Your task to perform on an android device: set the stopwatch Image 0: 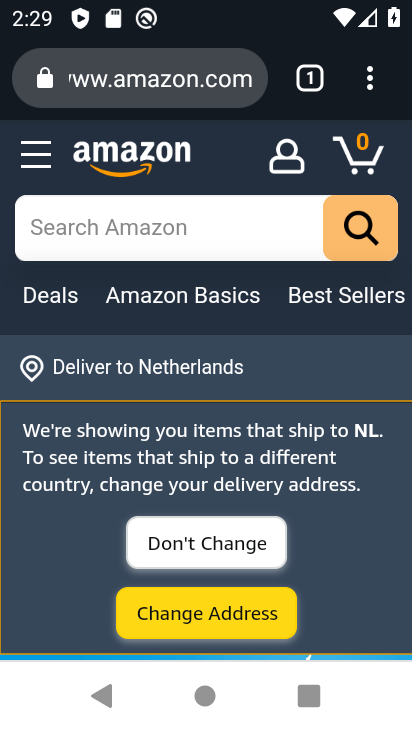
Step 0: press back button
Your task to perform on an android device: set the stopwatch Image 1: 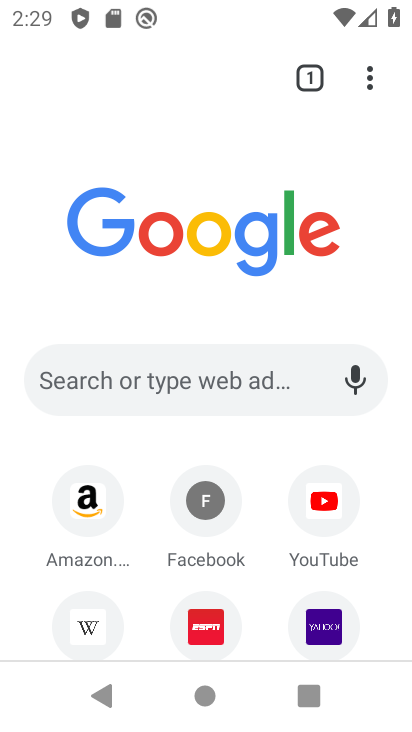
Step 1: press back button
Your task to perform on an android device: set the stopwatch Image 2: 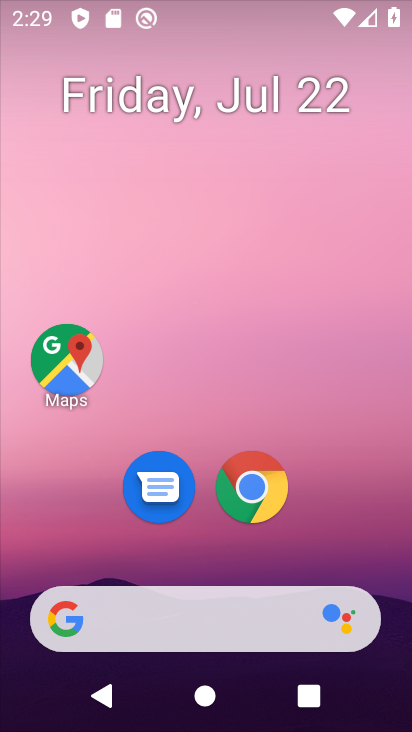
Step 2: drag from (104, 546) to (207, 0)
Your task to perform on an android device: set the stopwatch Image 3: 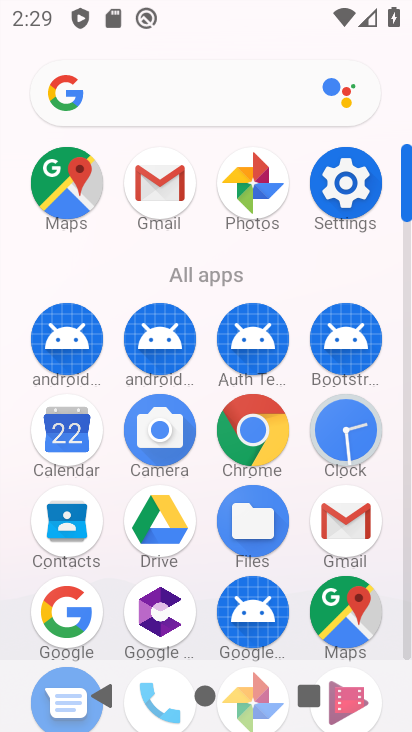
Step 3: click (349, 429)
Your task to perform on an android device: set the stopwatch Image 4: 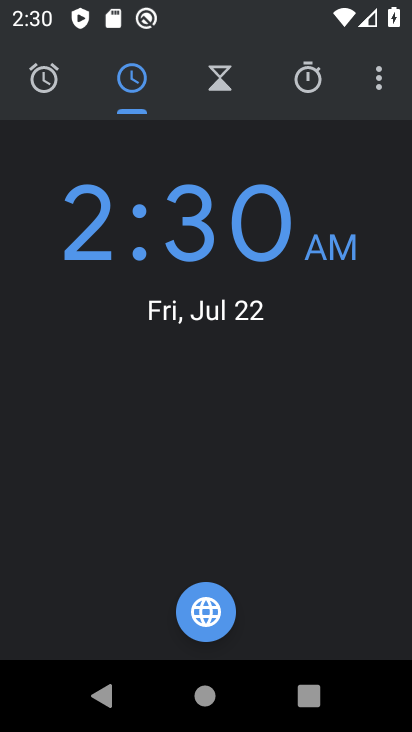
Step 4: click (308, 77)
Your task to perform on an android device: set the stopwatch Image 5: 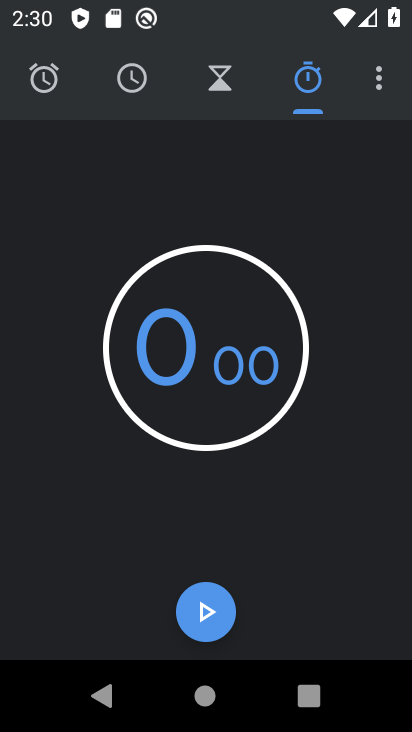
Step 5: task complete